Your task to perform on an android device: Go to Google maps Image 0: 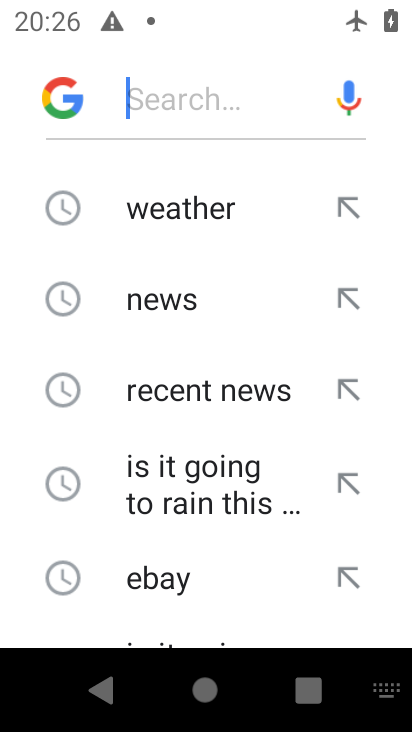
Step 0: press home button
Your task to perform on an android device: Go to Google maps Image 1: 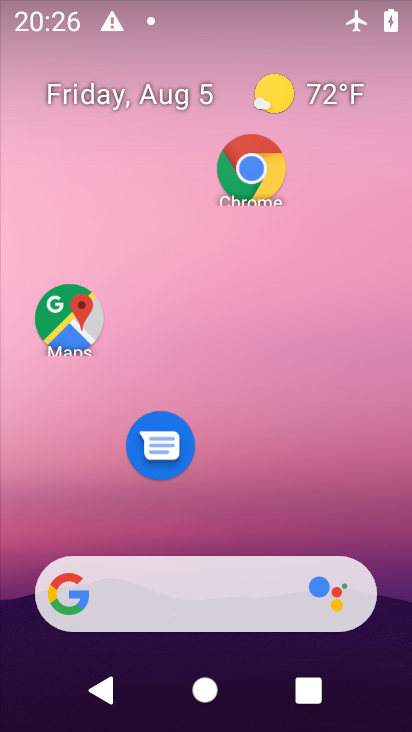
Step 1: click (81, 334)
Your task to perform on an android device: Go to Google maps Image 2: 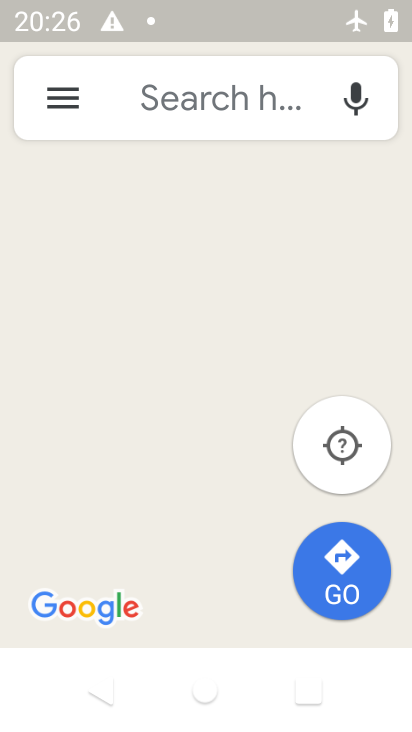
Step 2: task complete